Your task to perform on an android device: Go to battery settings Image 0: 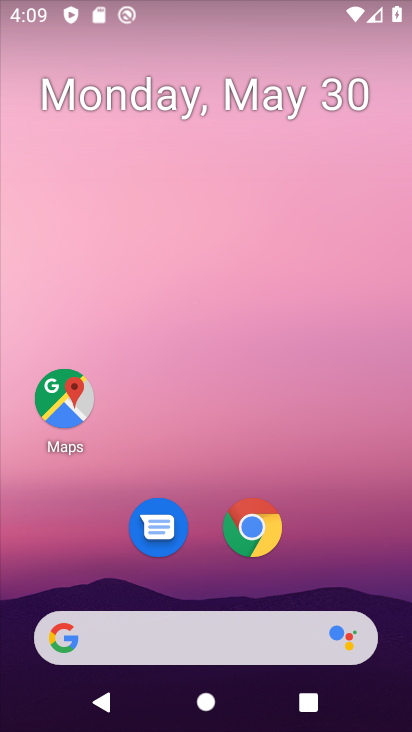
Step 0: drag from (240, 724) to (228, 77)
Your task to perform on an android device: Go to battery settings Image 1: 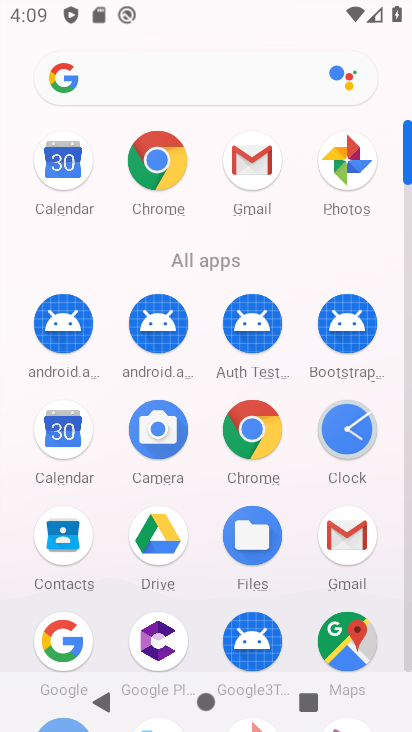
Step 1: drag from (188, 580) to (191, 99)
Your task to perform on an android device: Go to battery settings Image 2: 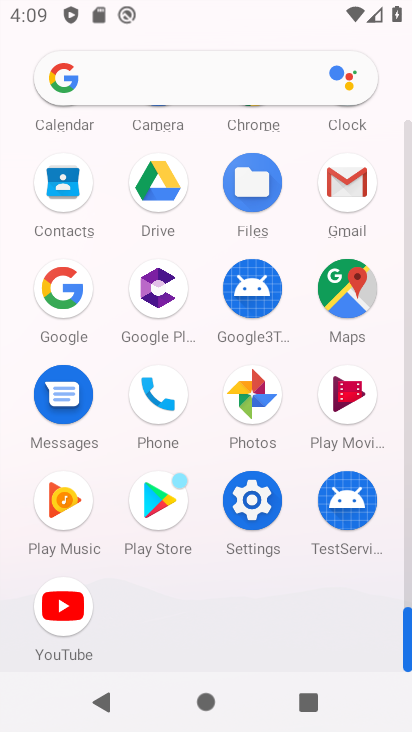
Step 2: click (248, 504)
Your task to perform on an android device: Go to battery settings Image 3: 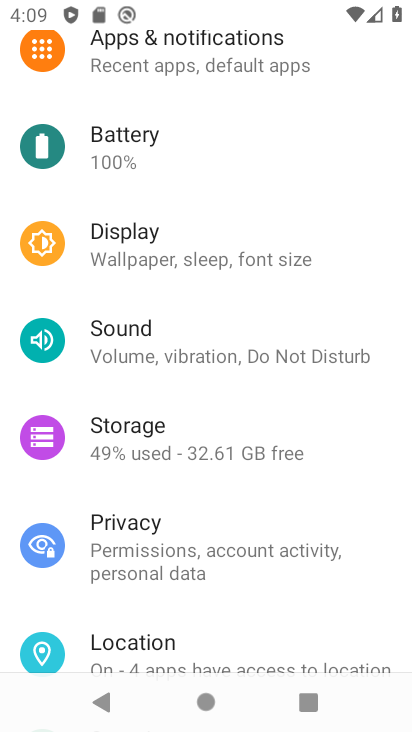
Step 3: click (117, 136)
Your task to perform on an android device: Go to battery settings Image 4: 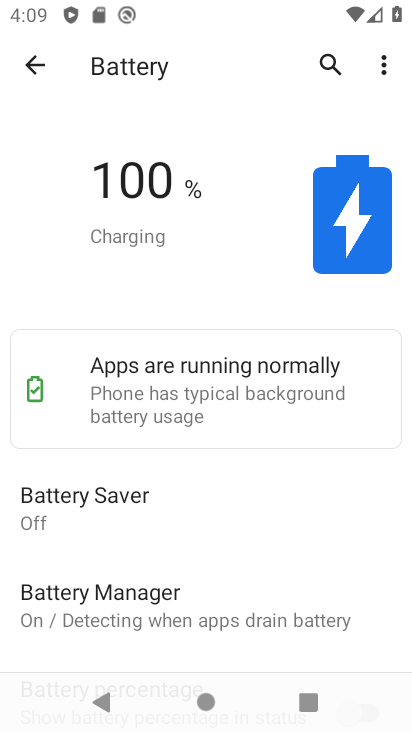
Step 4: task complete